Your task to perform on an android device: turn off location history Image 0: 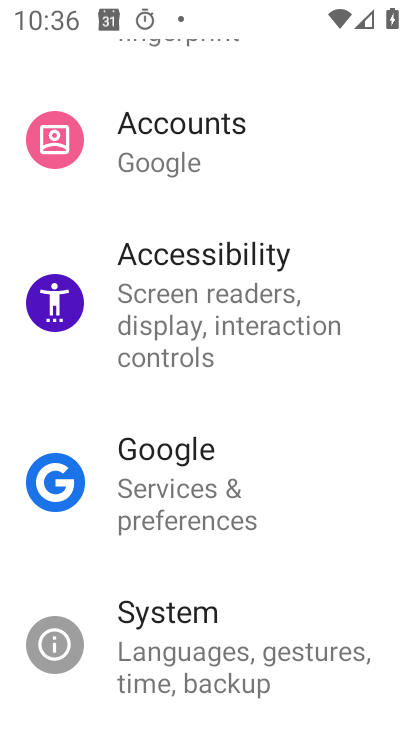
Step 0: press home button
Your task to perform on an android device: turn off location history Image 1: 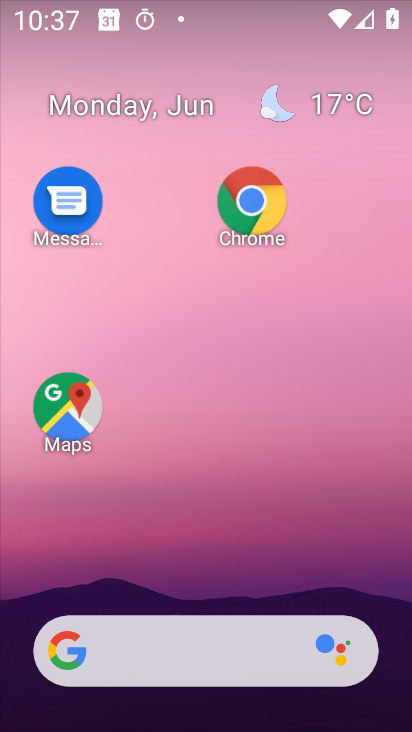
Step 1: drag from (213, 588) to (246, 73)
Your task to perform on an android device: turn off location history Image 2: 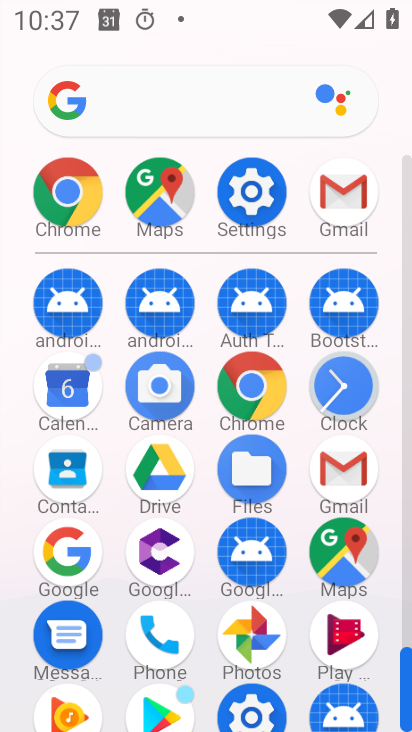
Step 2: click (261, 201)
Your task to perform on an android device: turn off location history Image 3: 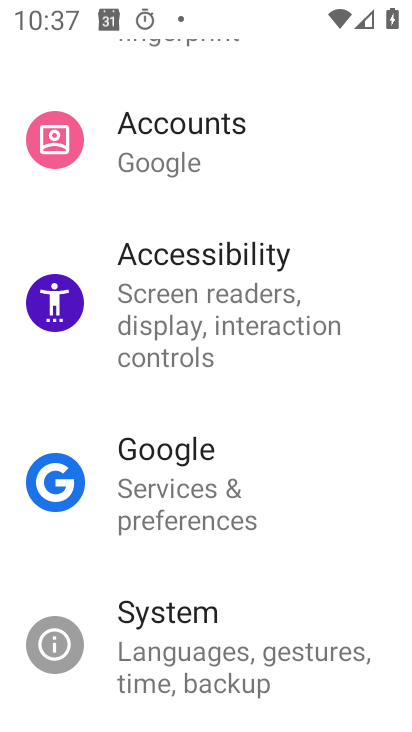
Step 3: drag from (261, 201) to (180, 623)
Your task to perform on an android device: turn off location history Image 4: 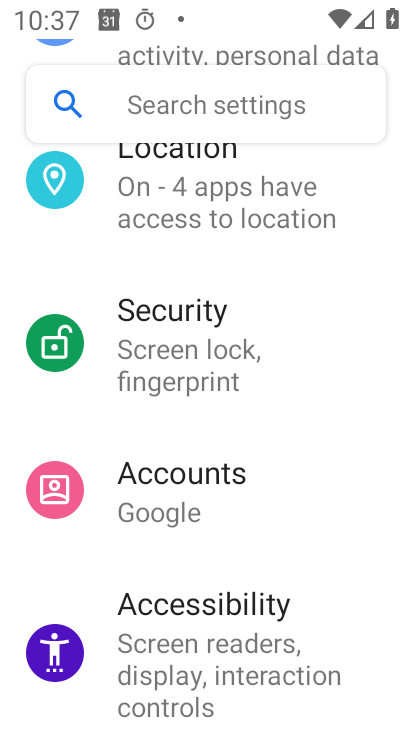
Step 4: click (135, 236)
Your task to perform on an android device: turn off location history Image 5: 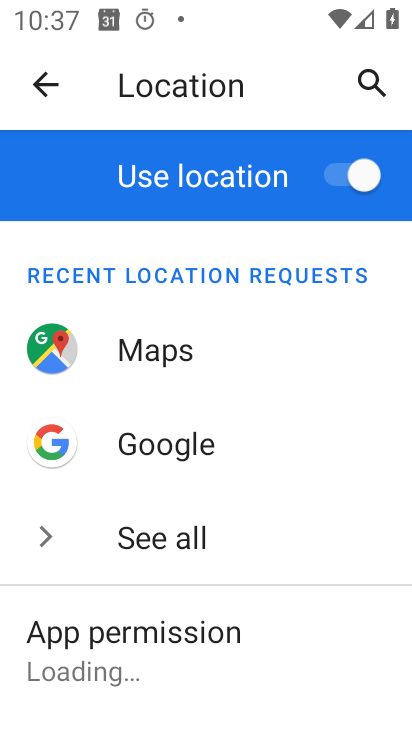
Step 5: drag from (196, 566) to (195, 308)
Your task to perform on an android device: turn off location history Image 6: 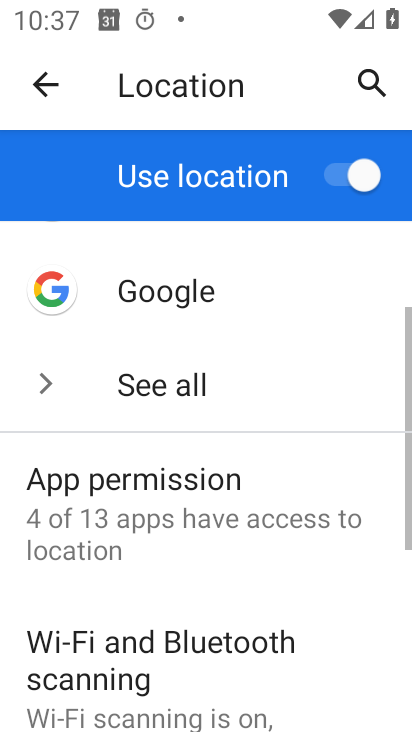
Step 6: drag from (230, 530) to (226, 9)
Your task to perform on an android device: turn off location history Image 7: 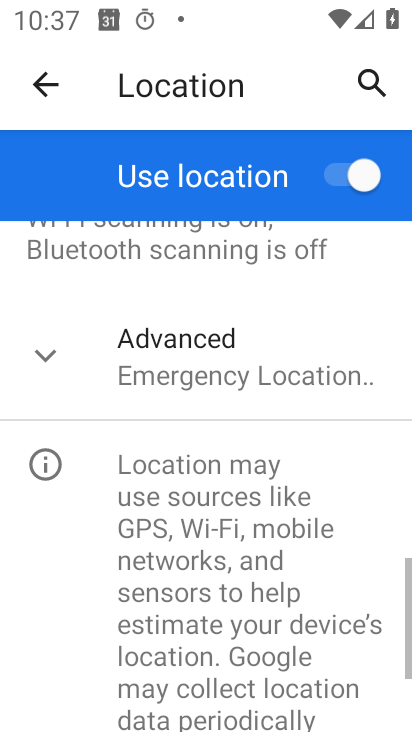
Step 7: click (149, 442)
Your task to perform on an android device: turn off location history Image 8: 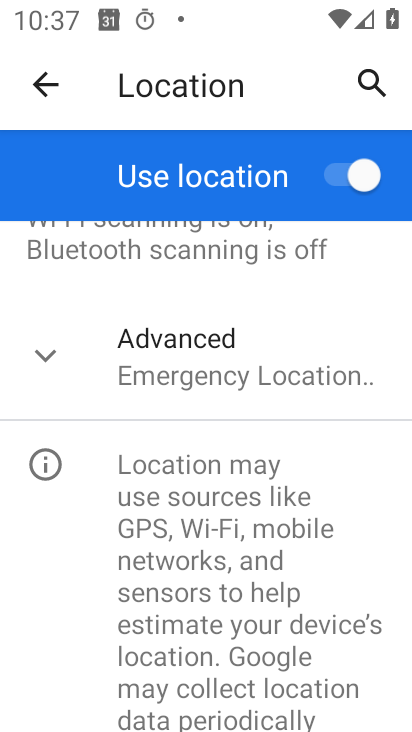
Step 8: click (164, 388)
Your task to perform on an android device: turn off location history Image 9: 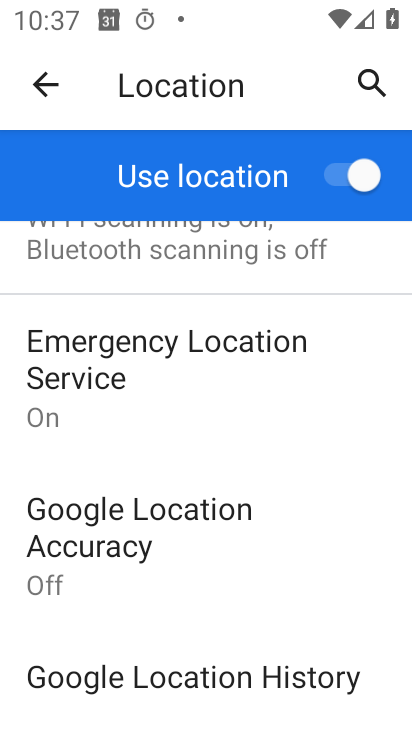
Step 9: click (138, 646)
Your task to perform on an android device: turn off location history Image 10: 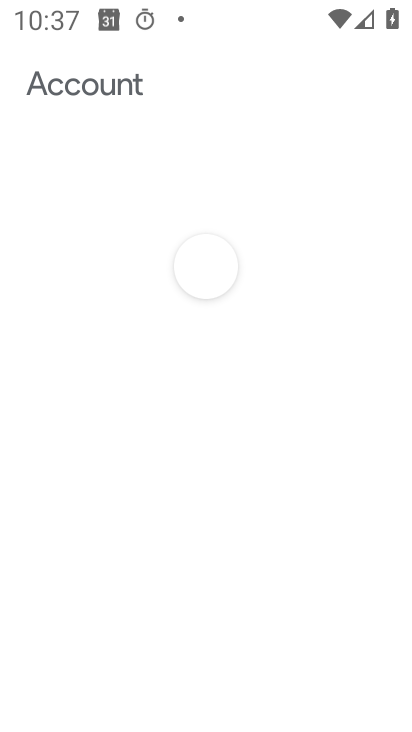
Step 10: click (138, 646)
Your task to perform on an android device: turn off location history Image 11: 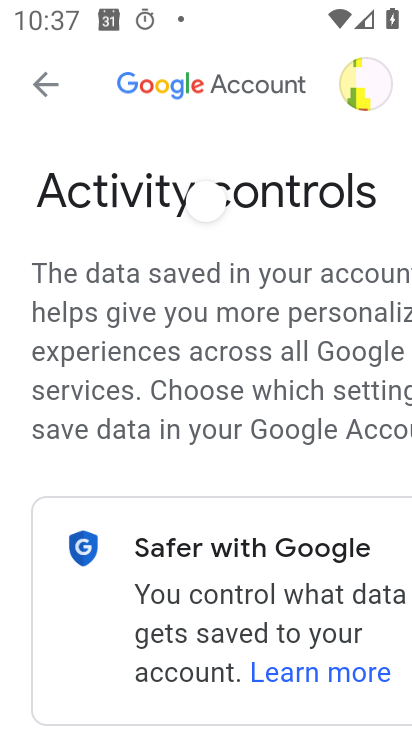
Step 11: drag from (209, 588) to (75, 151)
Your task to perform on an android device: turn off location history Image 12: 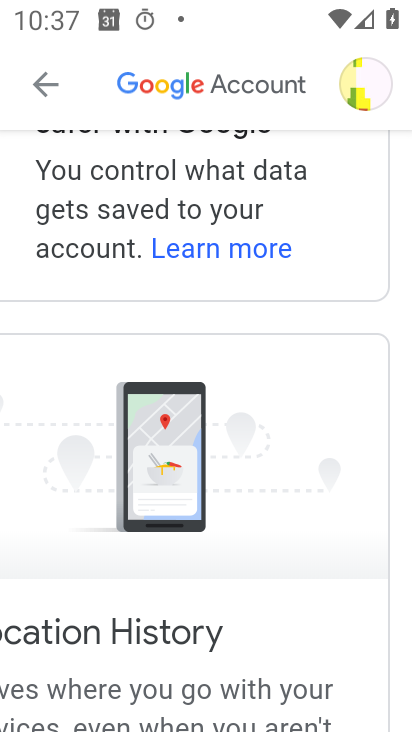
Step 12: drag from (300, 661) to (249, 163)
Your task to perform on an android device: turn off location history Image 13: 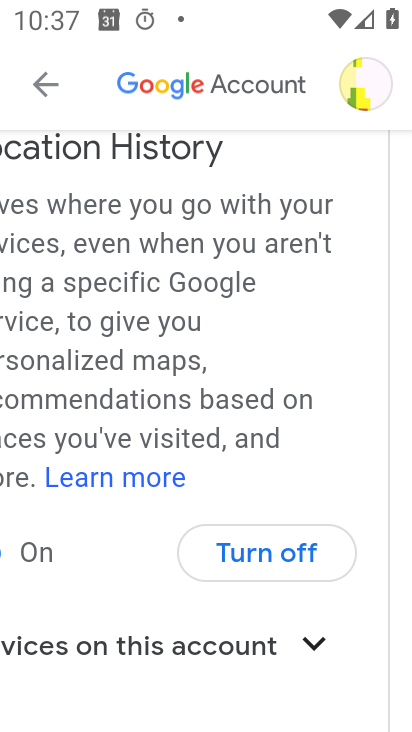
Step 13: drag from (283, 557) to (250, 395)
Your task to perform on an android device: turn off location history Image 14: 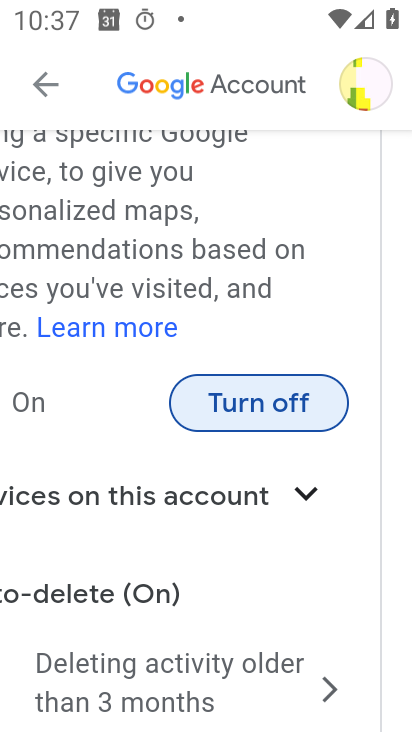
Step 14: click (271, 572)
Your task to perform on an android device: turn off location history Image 15: 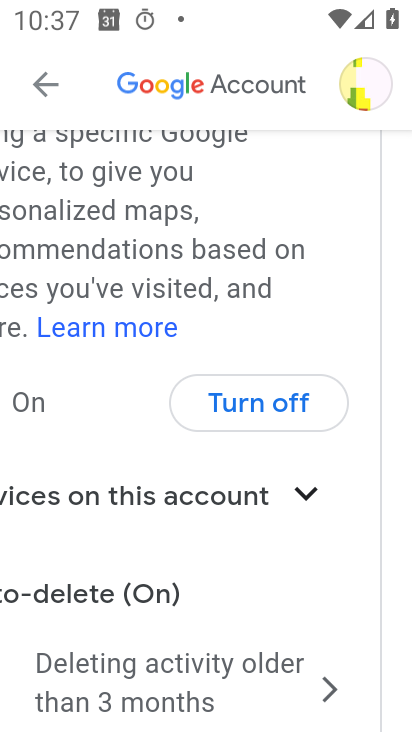
Step 15: click (279, 428)
Your task to perform on an android device: turn off location history Image 16: 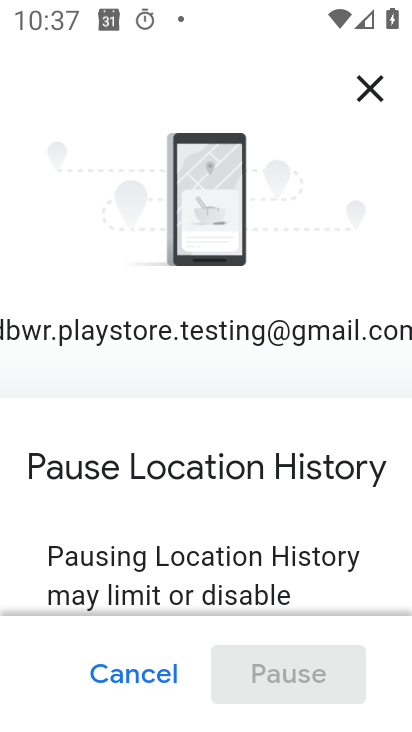
Step 16: drag from (299, 573) to (310, 7)
Your task to perform on an android device: turn off location history Image 17: 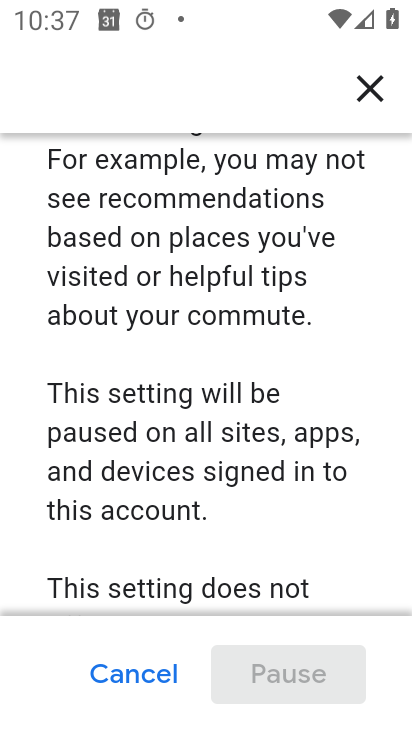
Step 17: drag from (250, 577) to (135, 6)
Your task to perform on an android device: turn off location history Image 18: 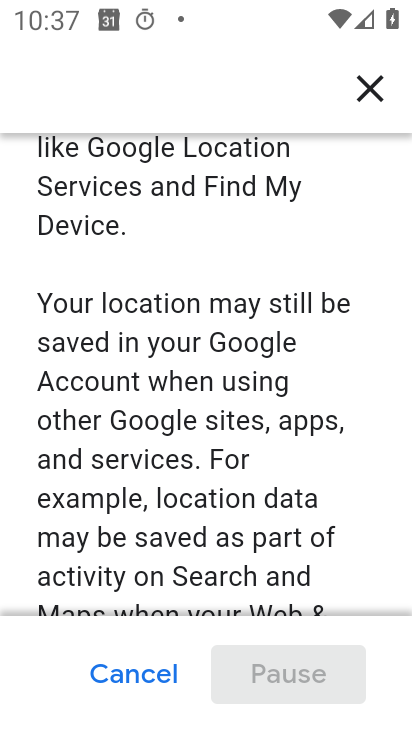
Step 18: drag from (311, 545) to (242, 24)
Your task to perform on an android device: turn off location history Image 19: 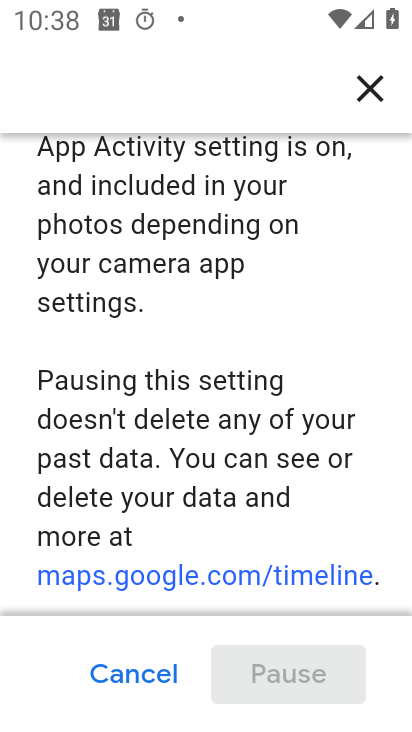
Step 19: drag from (277, 563) to (225, 128)
Your task to perform on an android device: turn off location history Image 20: 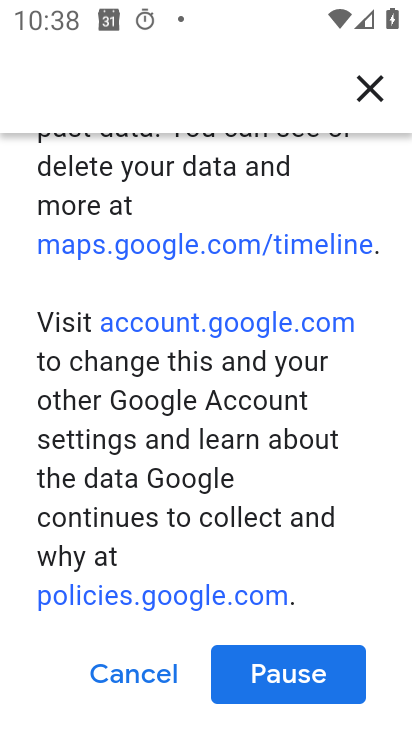
Step 20: click (300, 701)
Your task to perform on an android device: turn off location history Image 21: 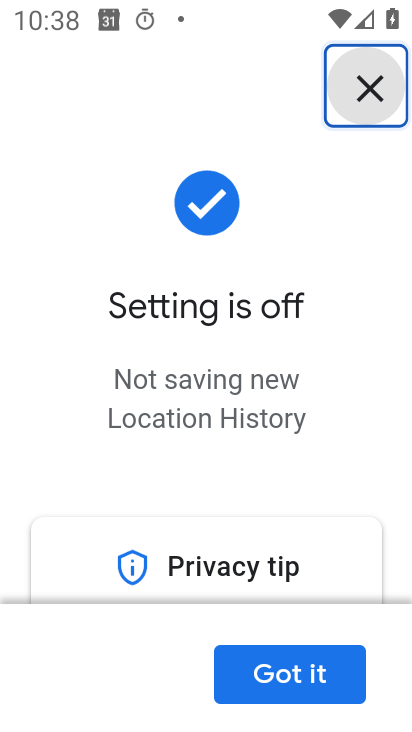
Step 21: click (341, 675)
Your task to perform on an android device: turn off location history Image 22: 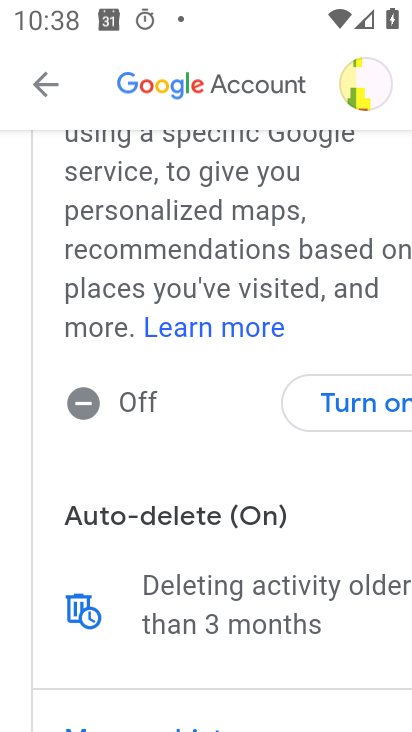
Step 22: task complete